Your task to perform on an android device: uninstall "Mercado Libre" Image 0: 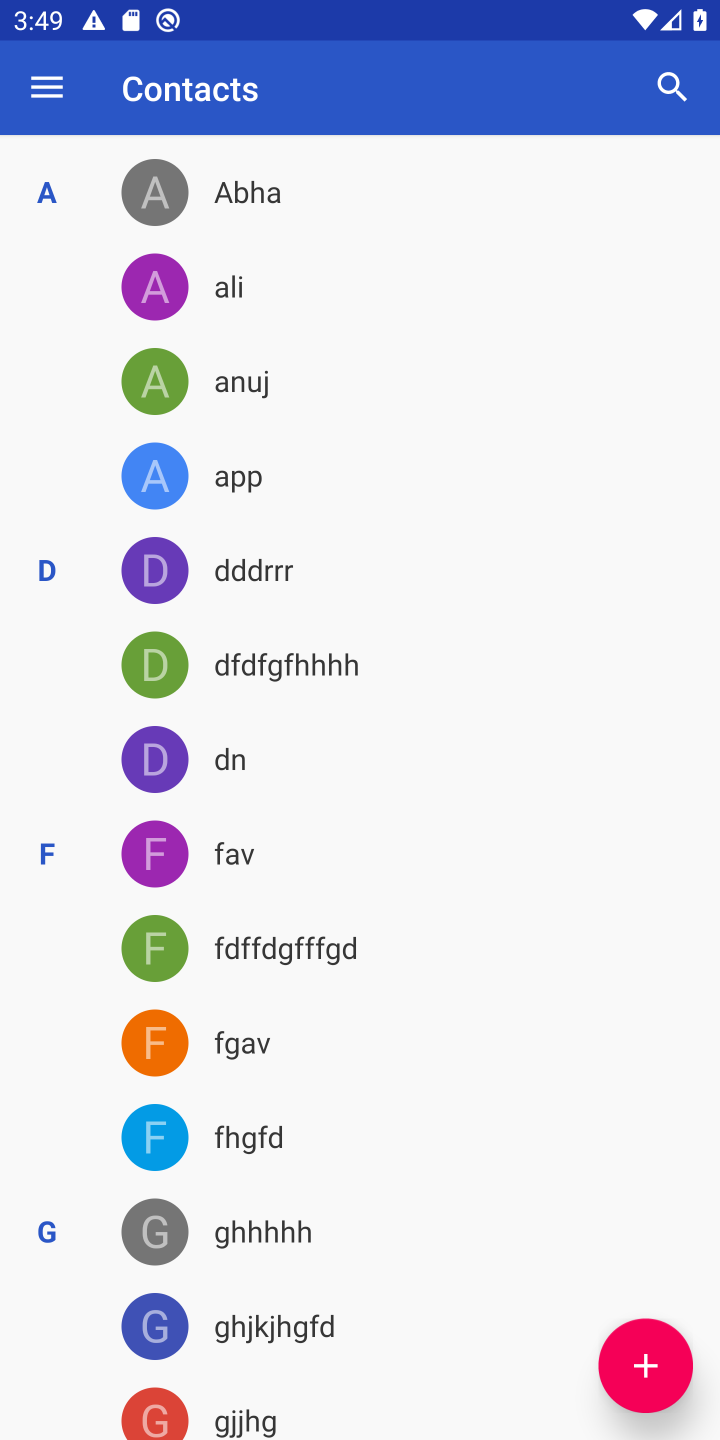
Step 0: press home button
Your task to perform on an android device: uninstall "Mercado Libre" Image 1: 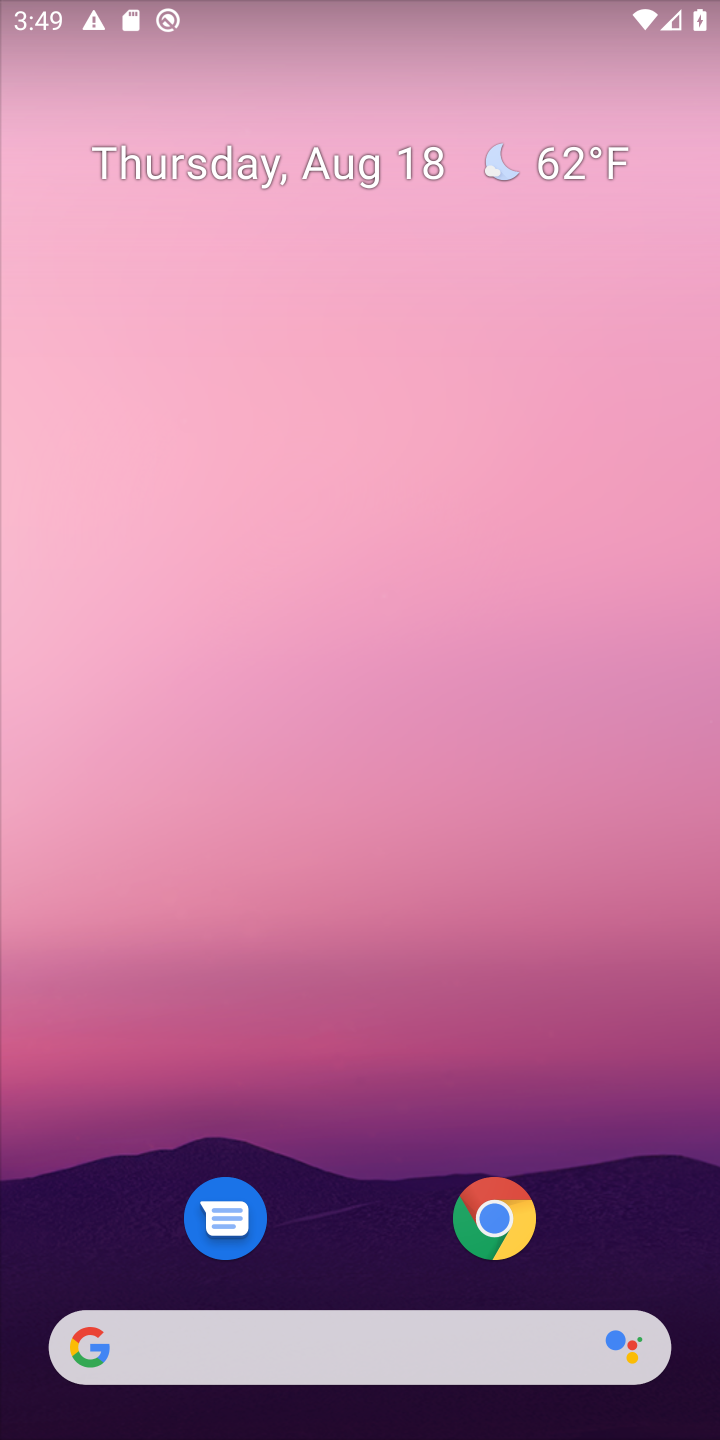
Step 1: drag from (360, 1146) to (383, 382)
Your task to perform on an android device: uninstall "Mercado Libre" Image 2: 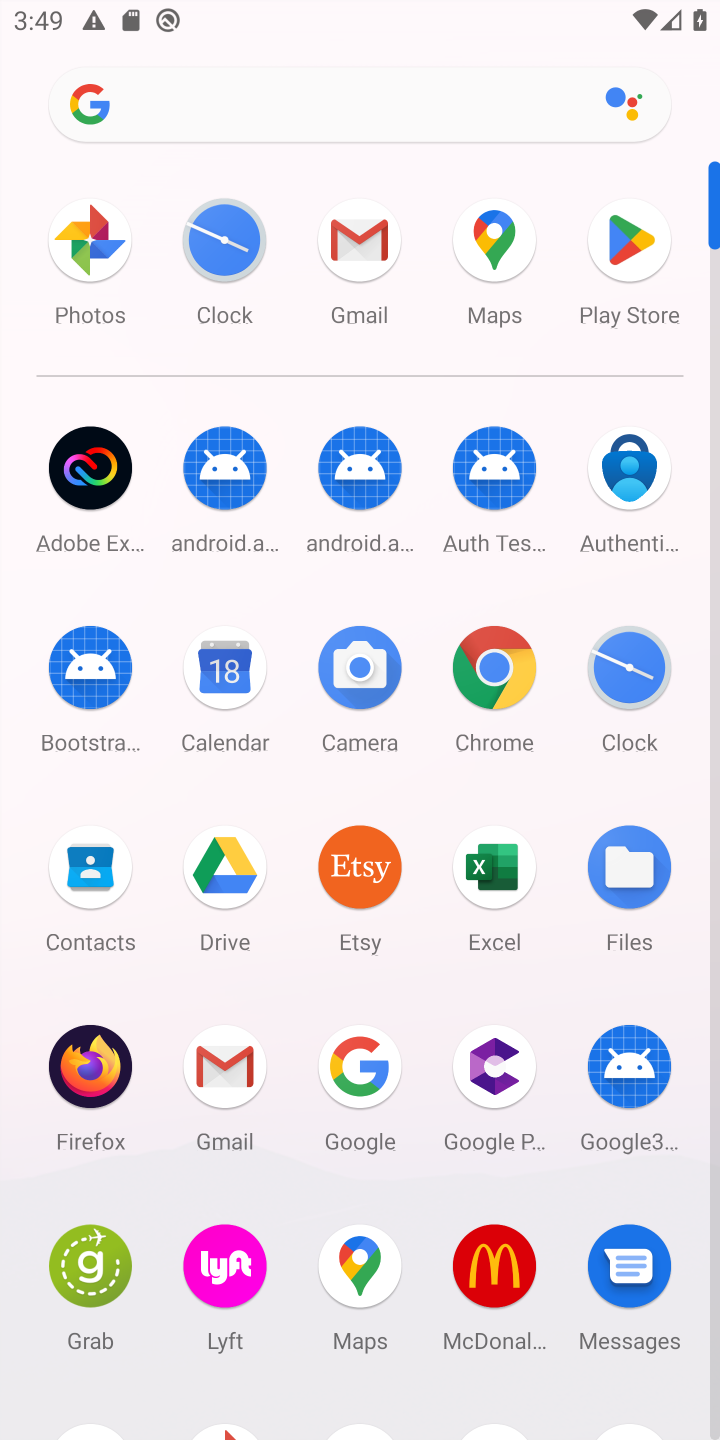
Step 2: click (592, 281)
Your task to perform on an android device: uninstall "Mercado Libre" Image 3: 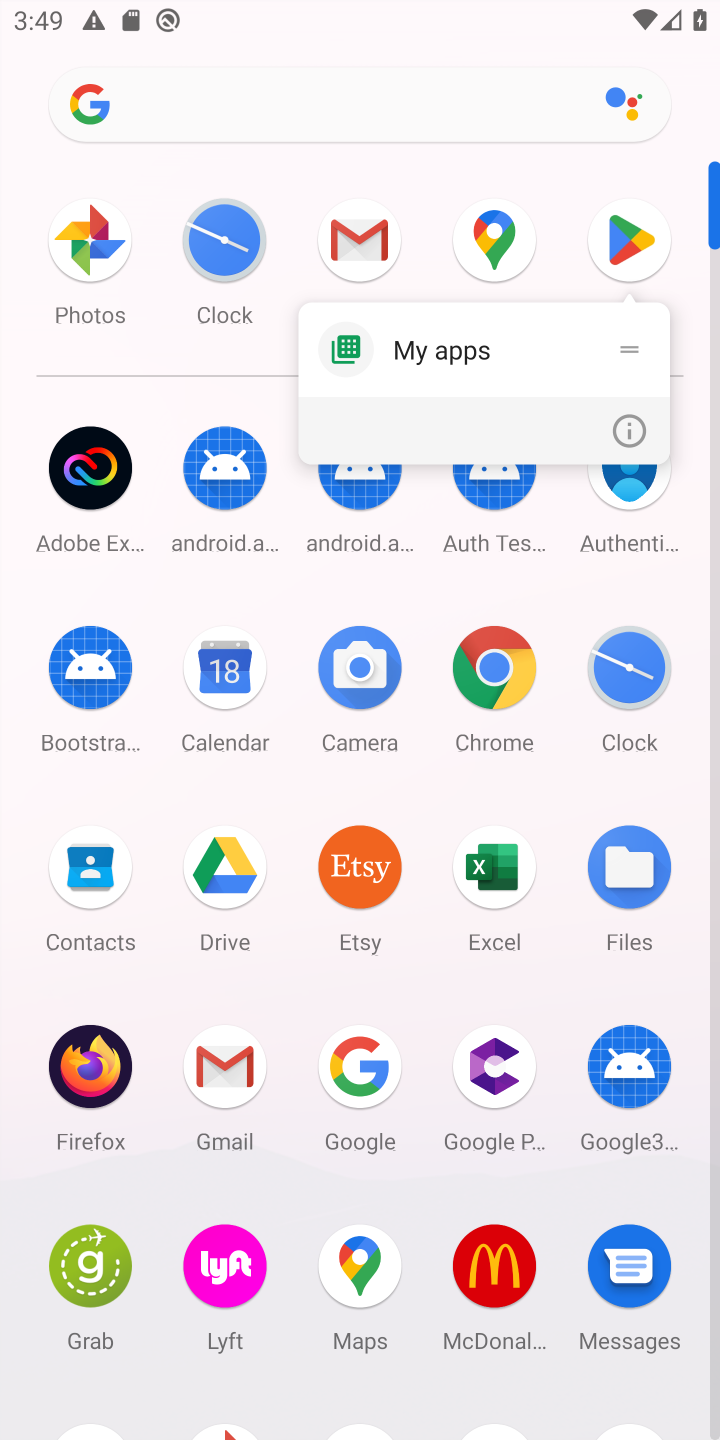
Step 3: click (621, 252)
Your task to perform on an android device: uninstall "Mercado Libre" Image 4: 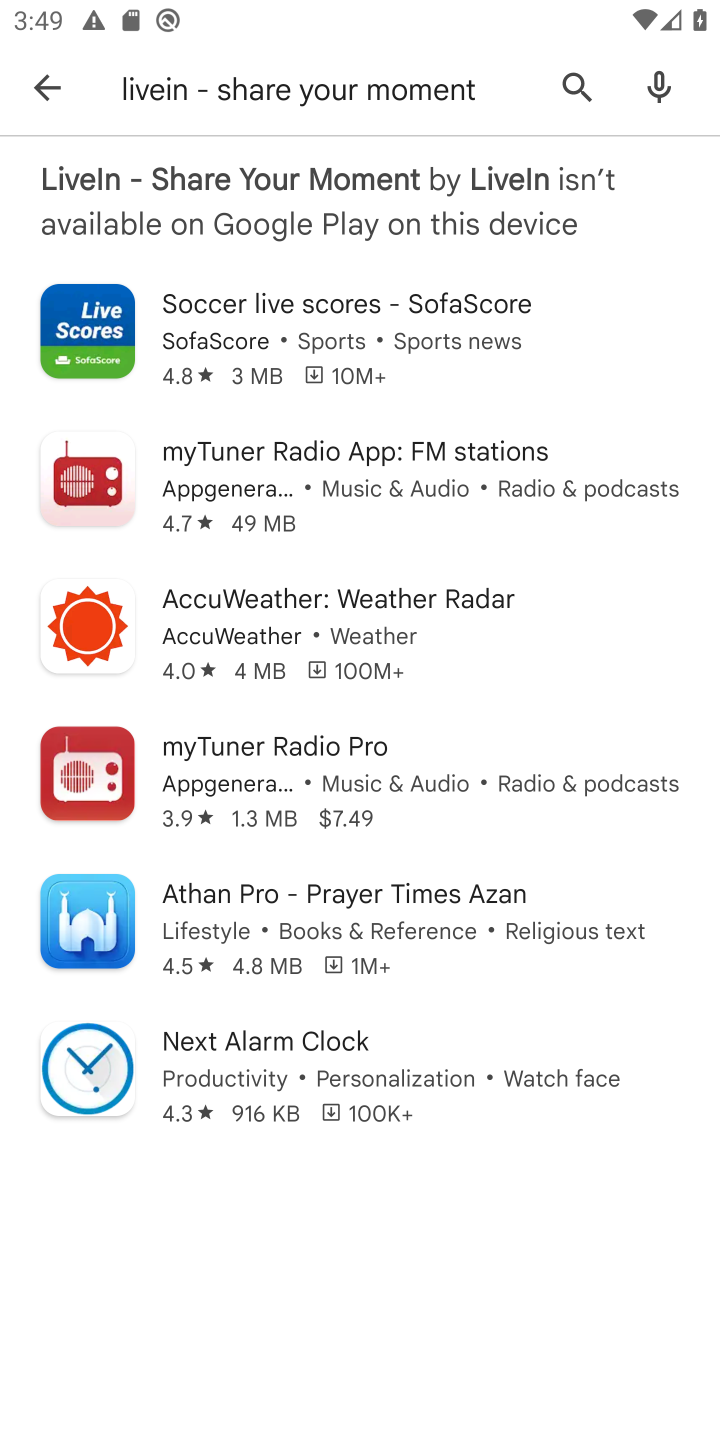
Step 4: click (560, 79)
Your task to perform on an android device: uninstall "Mercado Libre" Image 5: 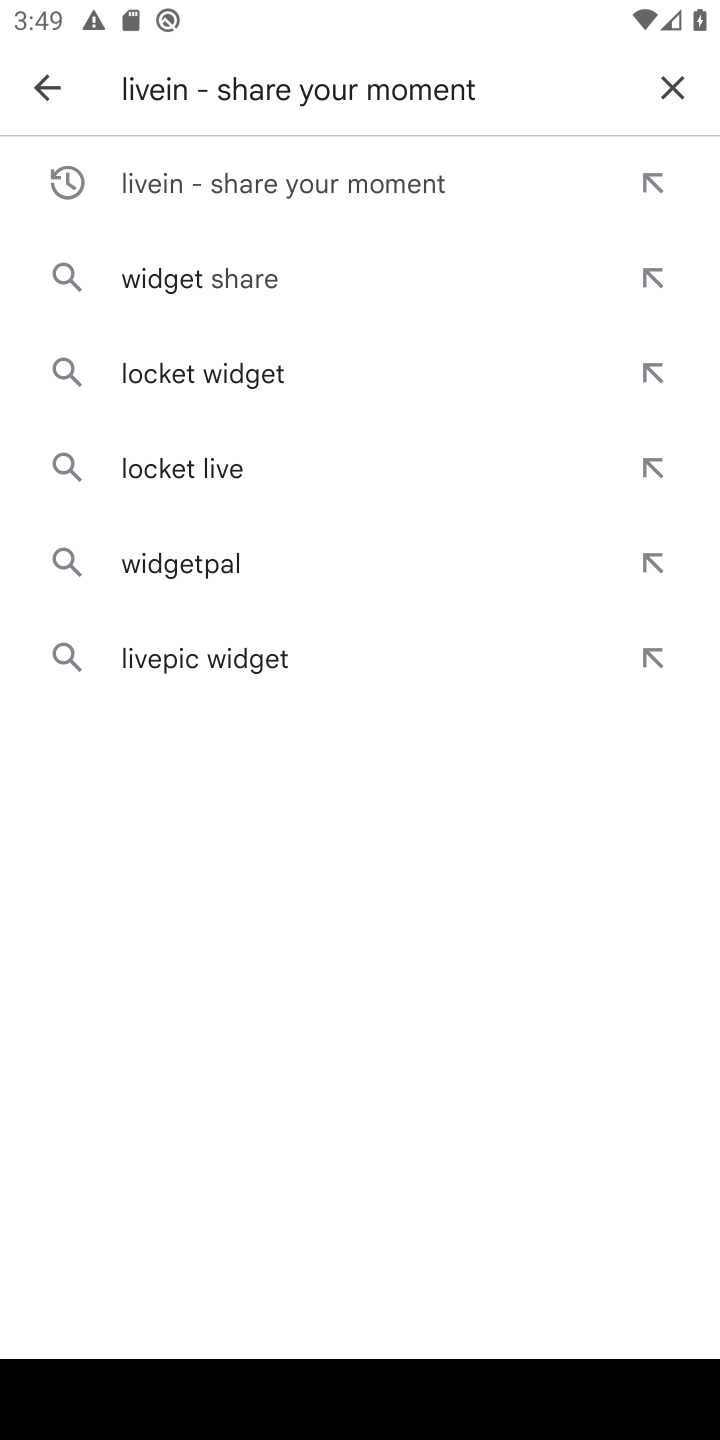
Step 5: click (668, 72)
Your task to perform on an android device: uninstall "Mercado Libre" Image 6: 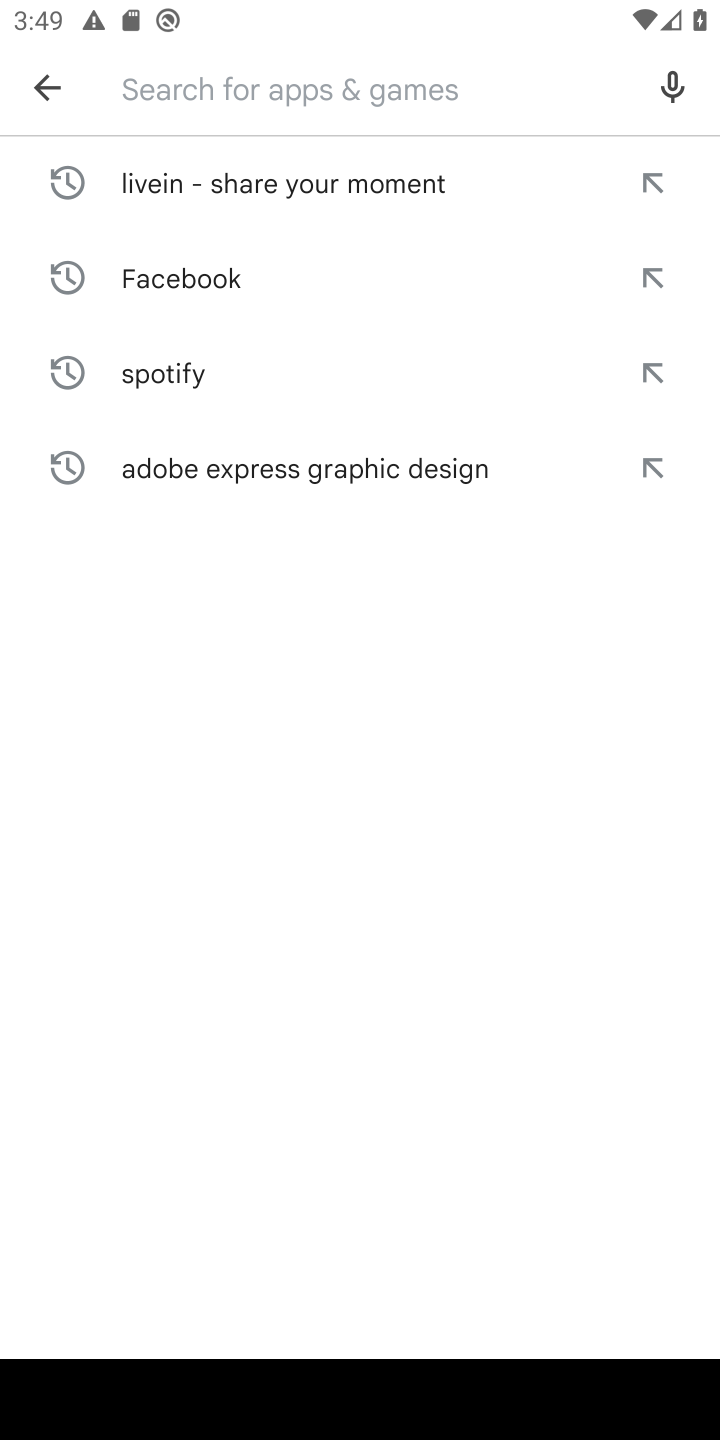
Step 6: type "Mercado Libre"
Your task to perform on an android device: uninstall "Mercado Libre" Image 7: 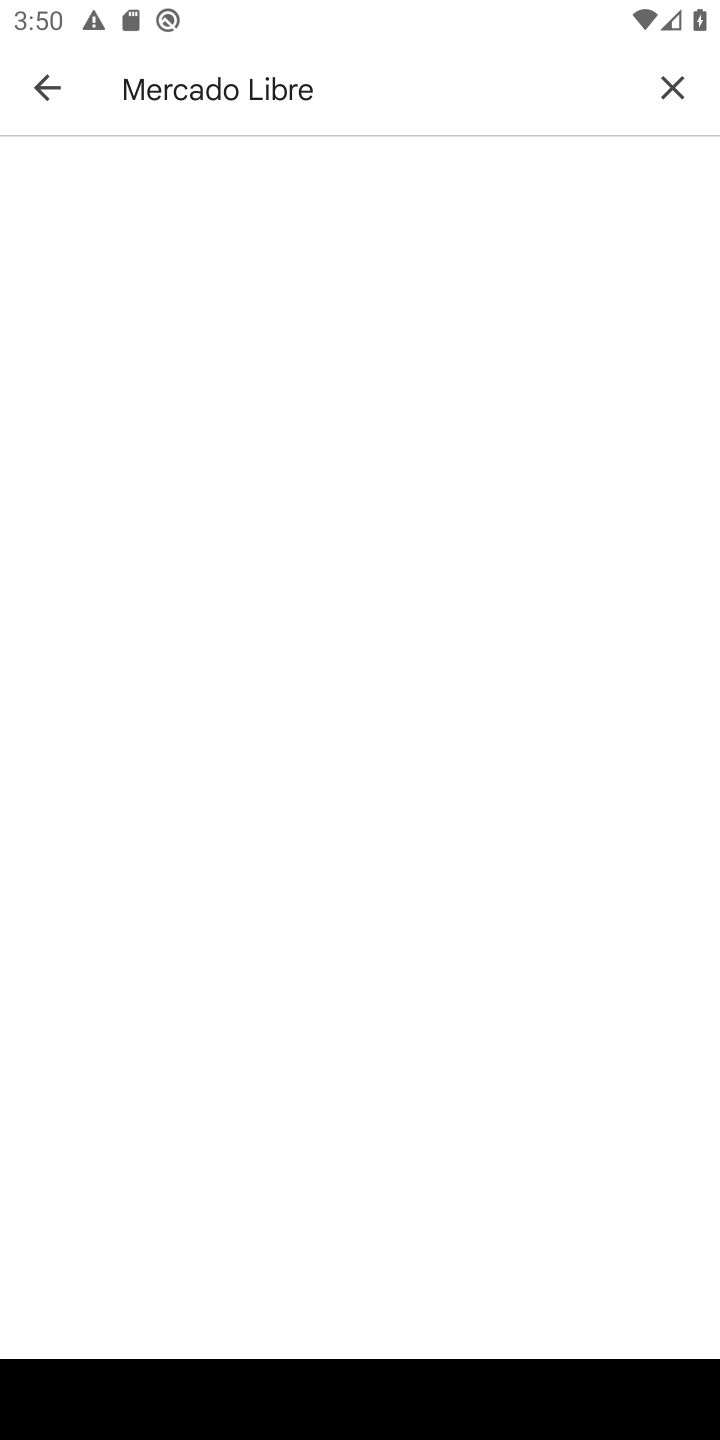
Step 7: task complete